Your task to perform on an android device: Open Youtube and go to the subscriptions tab Image 0: 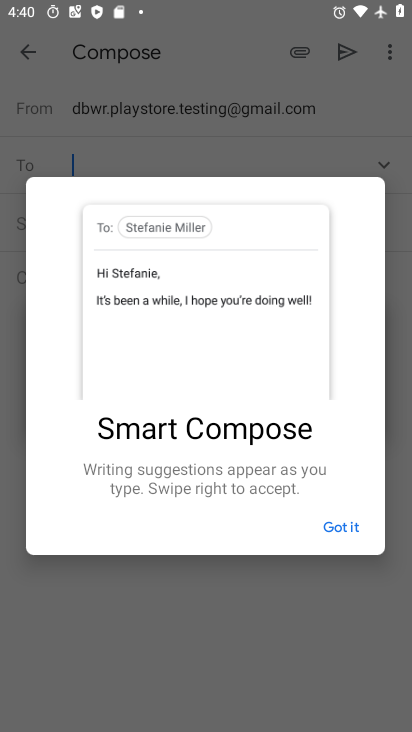
Step 0: press back button
Your task to perform on an android device: Open Youtube and go to the subscriptions tab Image 1: 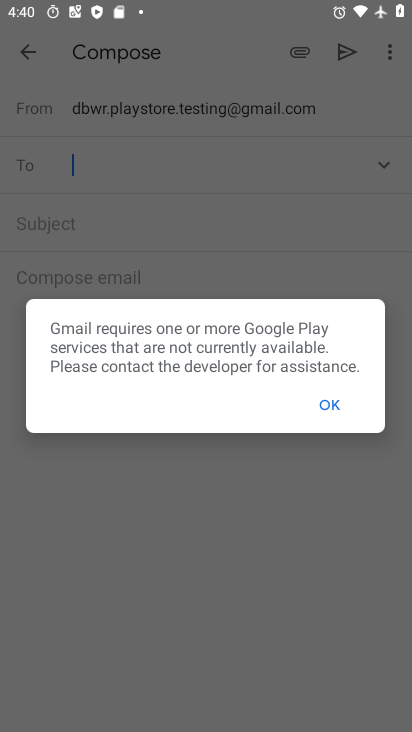
Step 1: press home button
Your task to perform on an android device: Open Youtube and go to the subscriptions tab Image 2: 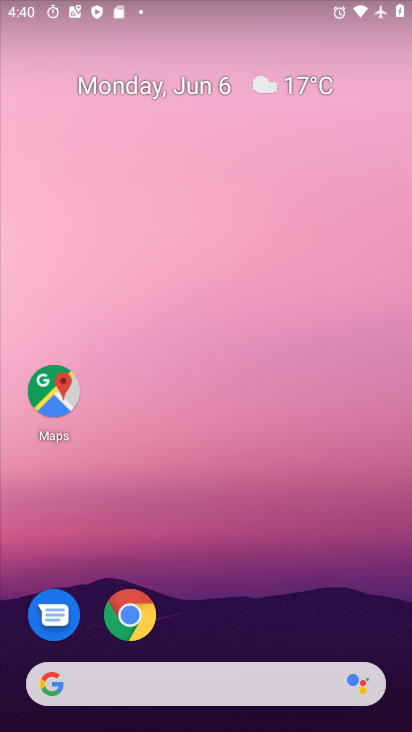
Step 2: drag from (282, 631) to (264, 10)
Your task to perform on an android device: Open Youtube and go to the subscriptions tab Image 3: 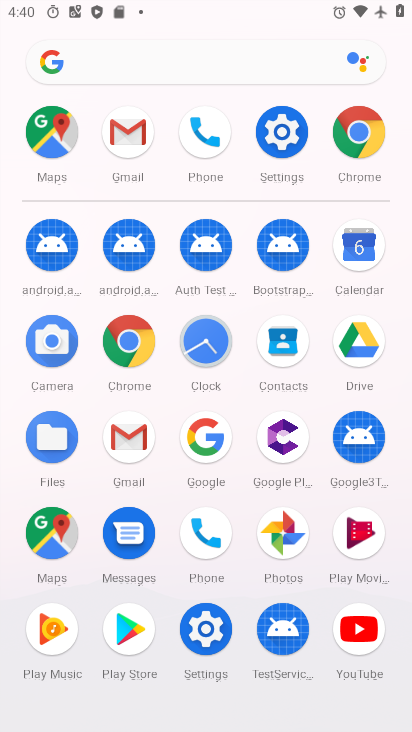
Step 3: click (361, 629)
Your task to perform on an android device: Open Youtube and go to the subscriptions tab Image 4: 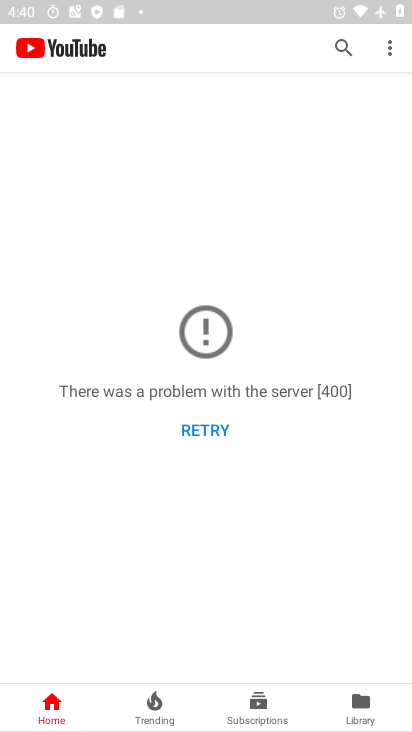
Step 4: click (263, 701)
Your task to perform on an android device: Open Youtube and go to the subscriptions tab Image 5: 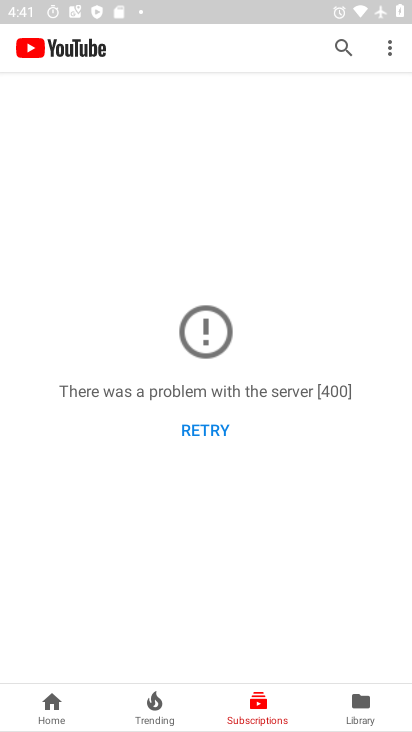
Step 5: task complete